Your task to perform on an android device: turn off sleep mode Image 0: 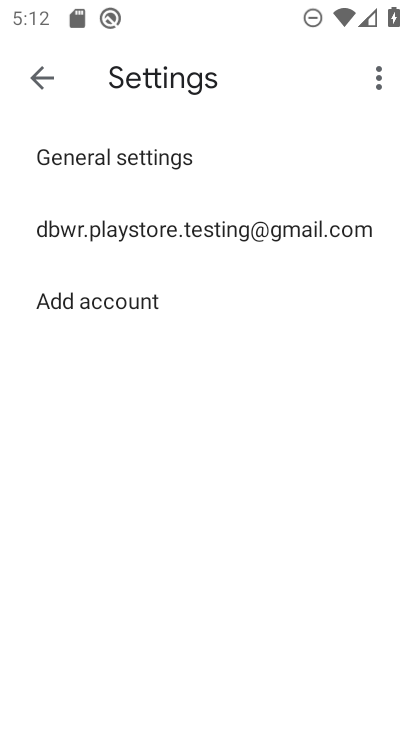
Step 0: press home button
Your task to perform on an android device: turn off sleep mode Image 1: 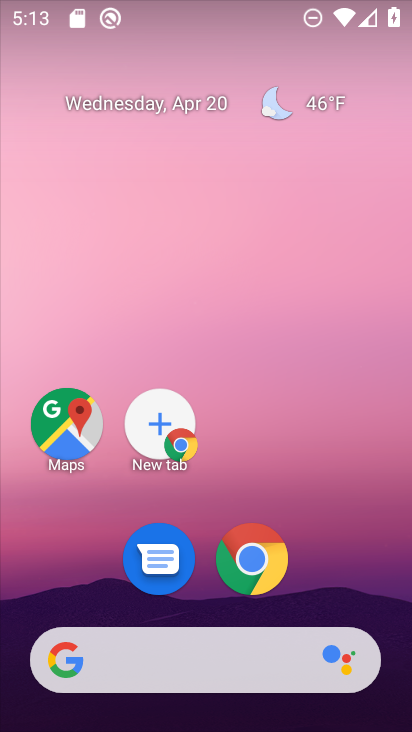
Step 1: drag from (341, 564) to (304, 295)
Your task to perform on an android device: turn off sleep mode Image 2: 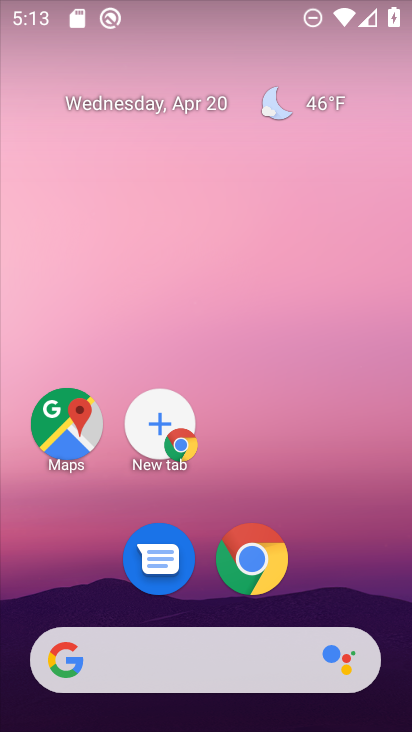
Step 2: drag from (344, 539) to (300, 58)
Your task to perform on an android device: turn off sleep mode Image 3: 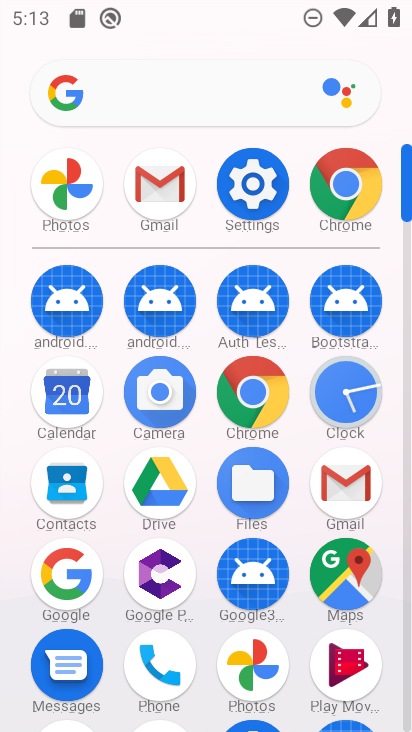
Step 3: click (257, 211)
Your task to perform on an android device: turn off sleep mode Image 4: 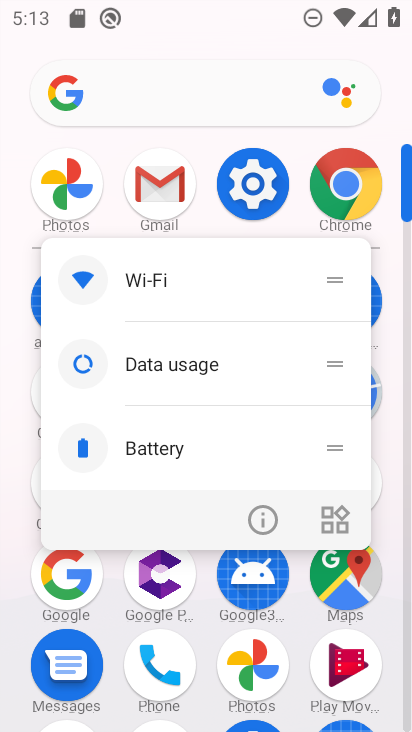
Step 4: click (244, 189)
Your task to perform on an android device: turn off sleep mode Image 5: 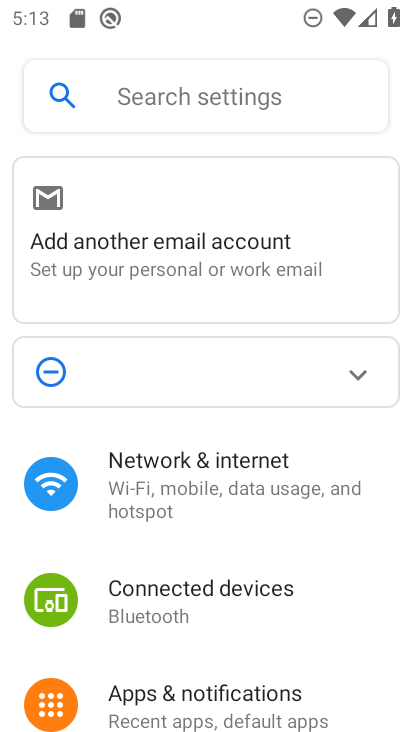
Step 5: drag from (217, 606) to (255, 384)
Your task to perform on an android device: turn off sleep mode Image 6: 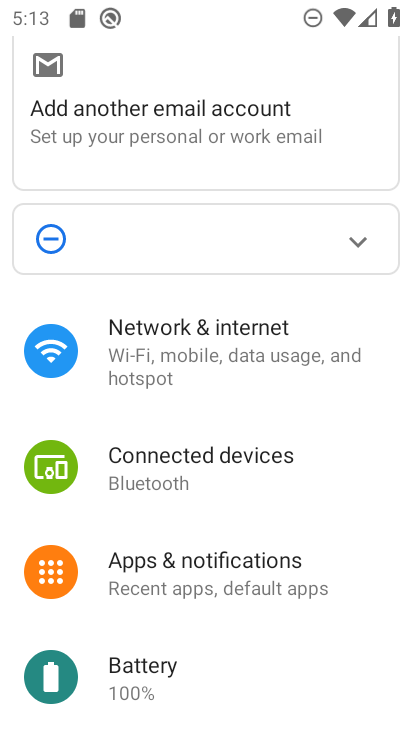
Step 6: drag from (172, 680) to (211, 499)
Your task to perform on an android device: turn off sleep mode Image 7: 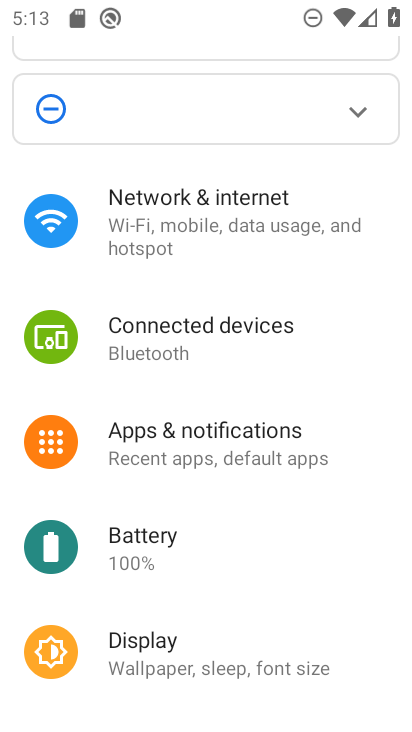
Step 7: click (200, 669)
Your task to perform on an android device: turn off sleep mode Image 8: 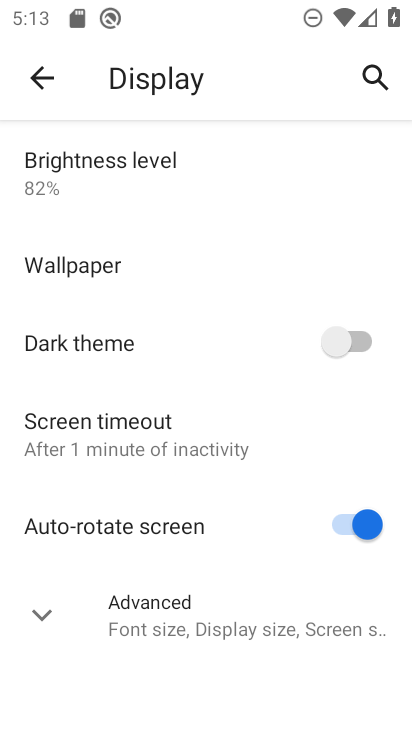
Step 8: drag from (174, 449) to (181, 336)
Your task to perform on an android device: turn off sleep mode Image 9: 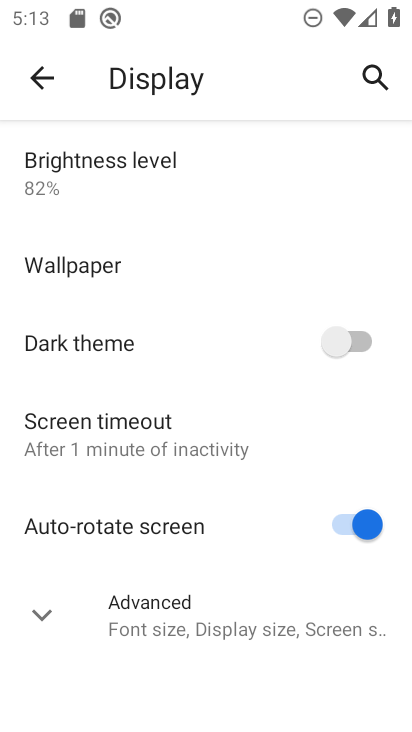
Step 9: click (135, 413)
Your task to perform on an android device: turn off sleep mode Image 10: 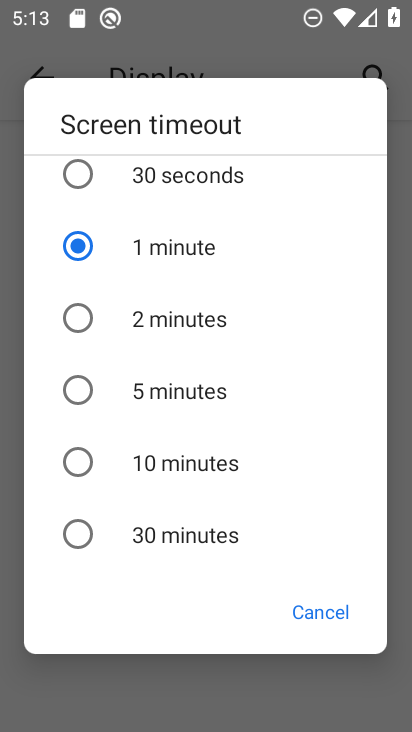
Step 10: click (178, 189)
Your task to perform on an android device: turn off sleep mode Image 11: 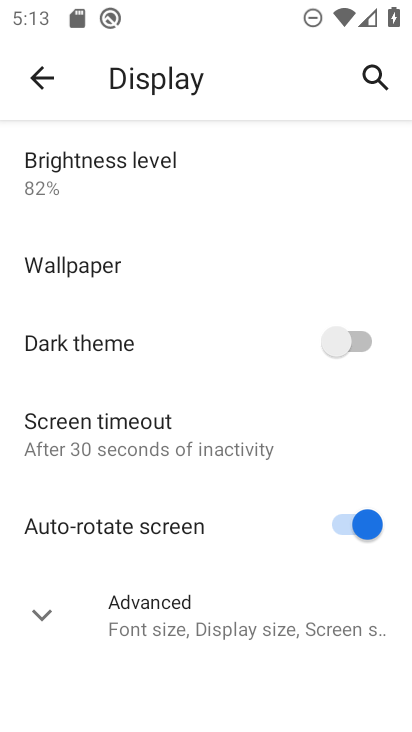
Step 11: task complete